Your task to perform on an android device: Go to eBay Image 0: 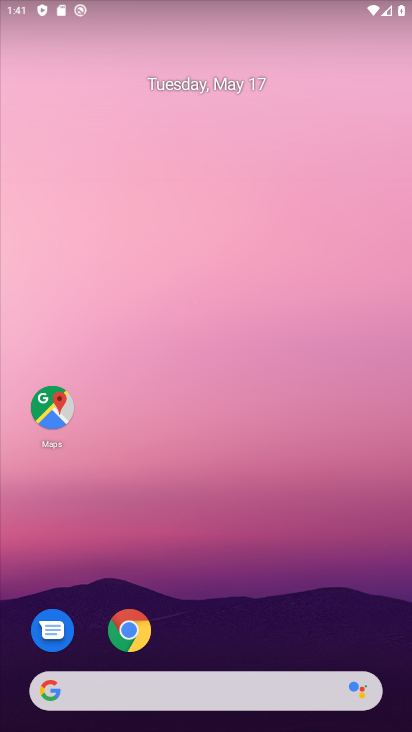
Step 0: drag from (347, 598) to (346, 171)
Your task to perform on an android device: Go to eBay Image 1: 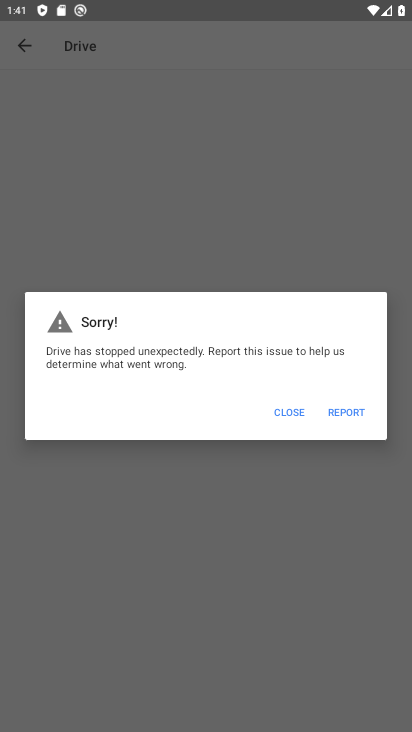
Step 1: press home button
Your task to perform on an android device: Go to eBay Image 2: 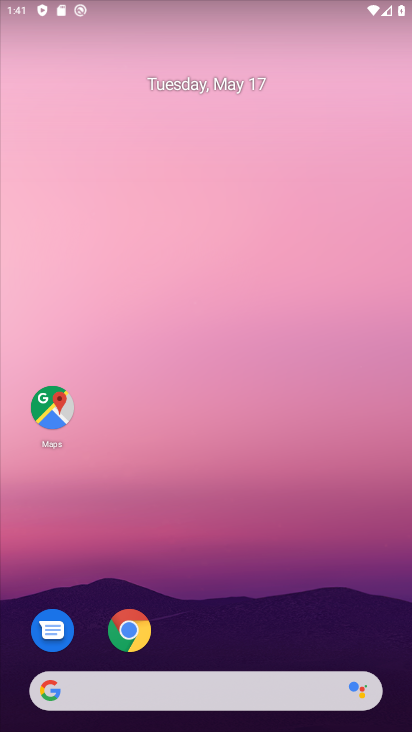
Step 2: drag from (342, 483) to (328, 183)
Your task to perform on an android device: Go to eBay Image 3: 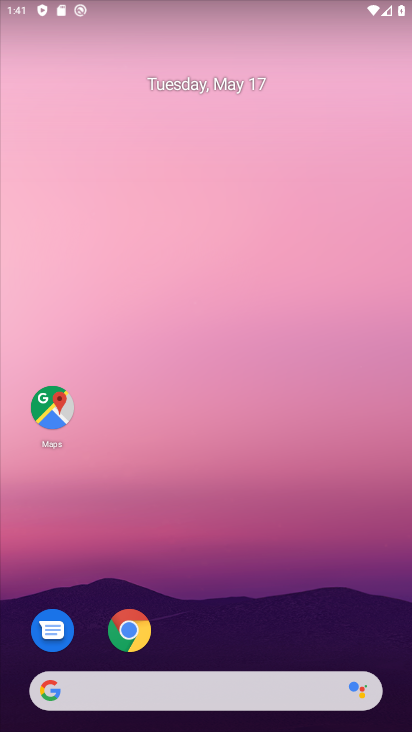
Step 3: drag from (371, 615) to (376, 137)
Your task to perform on an android device: Go to eBay Image 4: 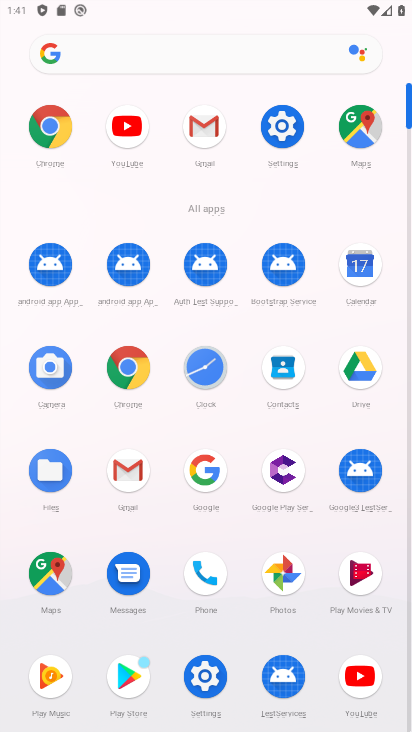
Step 4: click (128, 371)
Your task to perform on an android device: Go to eBay Image 5: 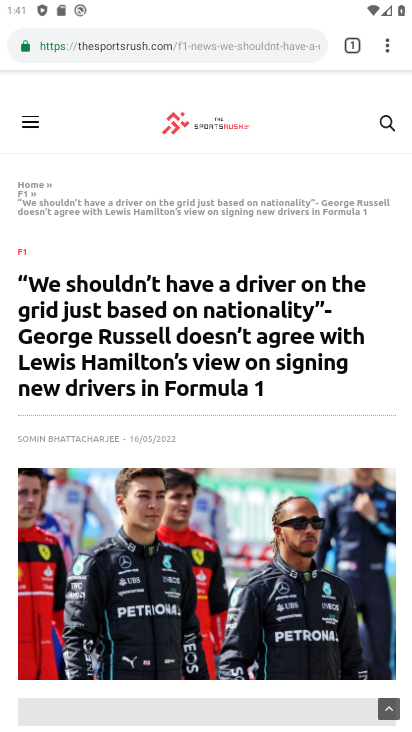
Step 5: click (211, 48)
Your task to perform on an android device: Go to eBay Image 6: 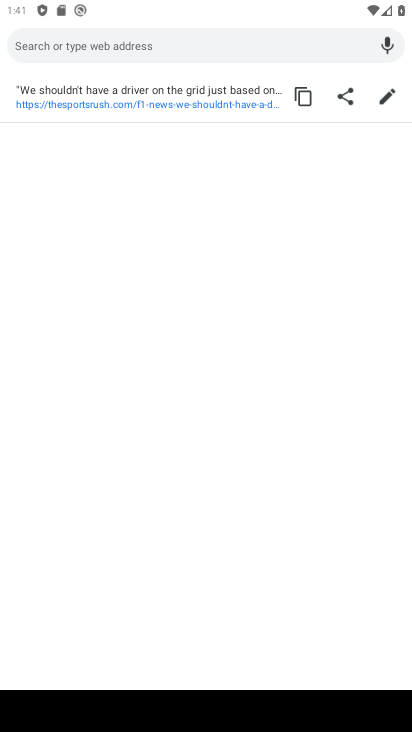
Step 6: type "ebay"
Your task to perform on an android device: Go to eBay Image 7: 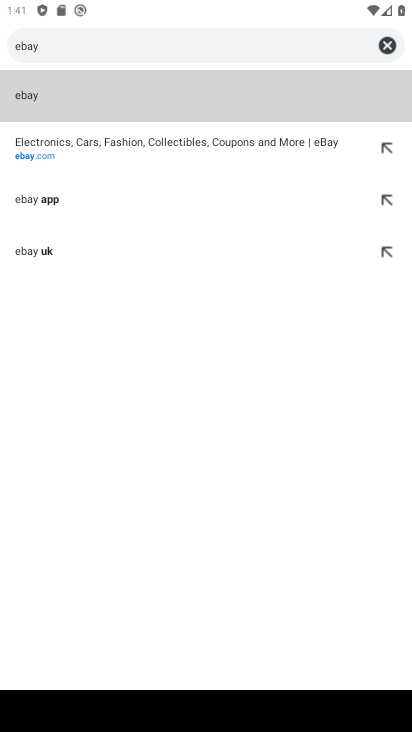
Step 7: click (85, 95)
Your task to perform on an android device: Go to eBay Image 8: 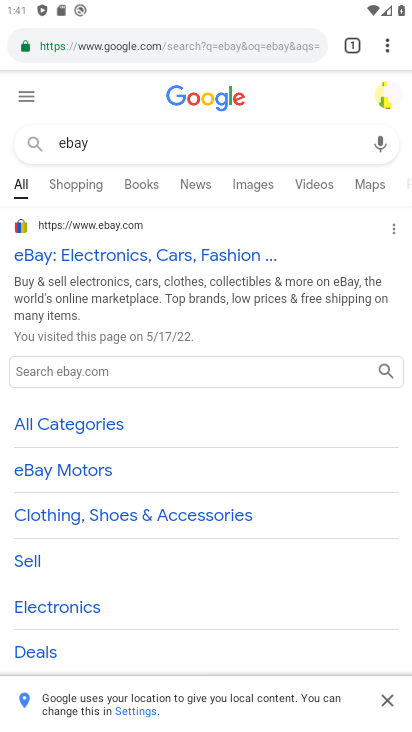
Step 8: click (124, 259)
Your task to perform on an android device: Go to eBay Image 9: 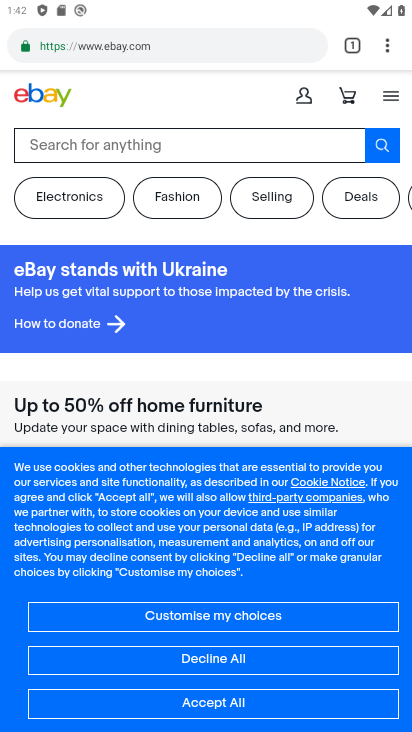
Step 9: task complete